Your task to perform on an android device: toggle javascript in the chrome app Image 0: 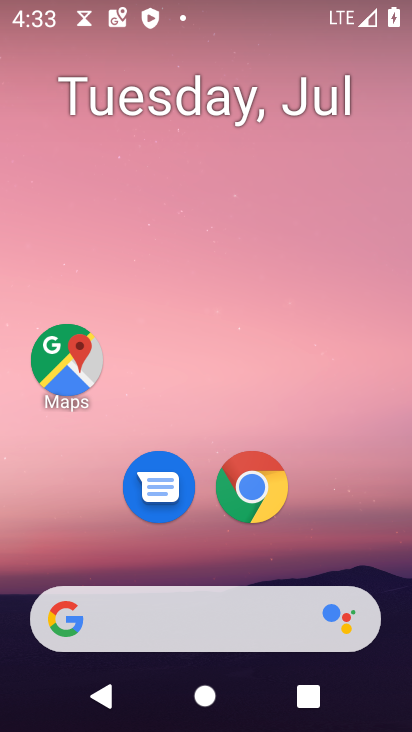
Step 0: click (245, 498)
Your task to perform on an android device: toggle javascript in the chrome app Image 1: 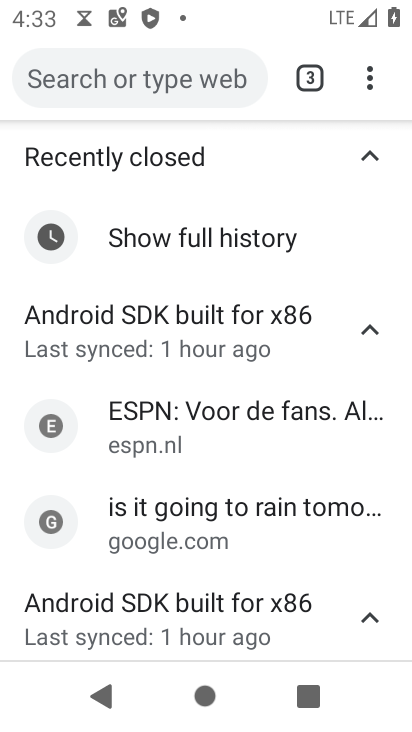
Step 1: drag from (365, 73) to (127, 543)
Your task to perform on an android device: toggle javascript in the chrome app Image 2: 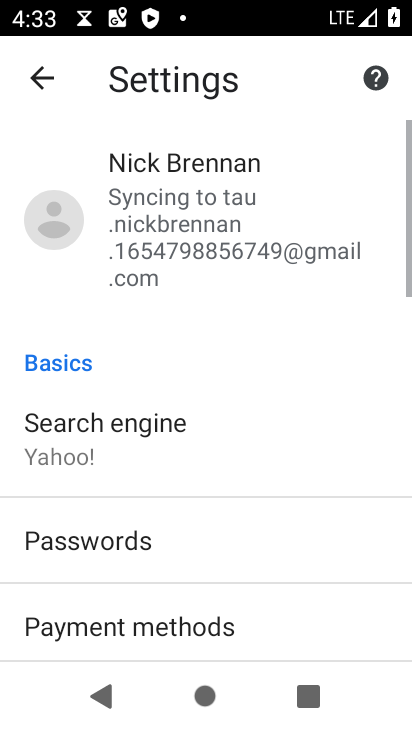
Step 2: drag from (190, 604) to (232, 79)
Your task to perform on an android device: toggle javascript in the chrome app Image 3: 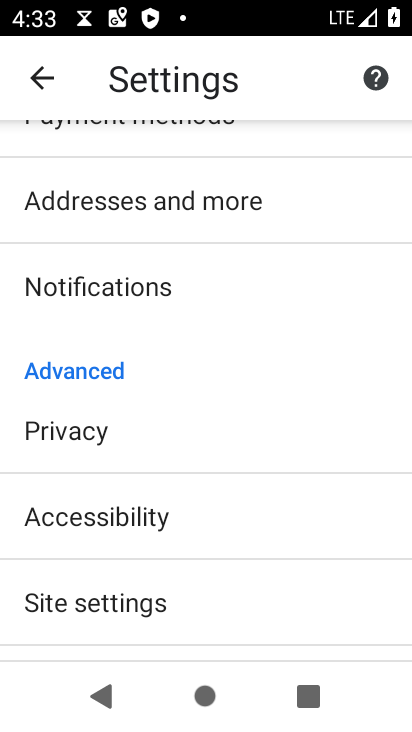
Step 3: click (120, 613)
Your task to perform on an android device: toggle javascript in the chrome app Image 4: 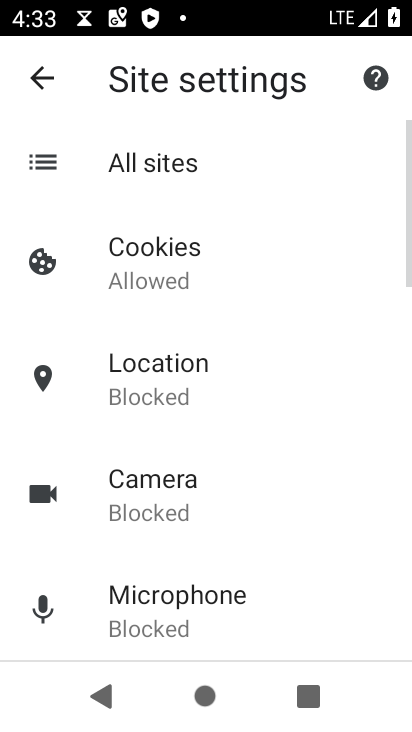
Step 4: drag from (157, 599) to (233, 45)
Your task to perform on an android device: toggle javascript in the chrome app Image 5: 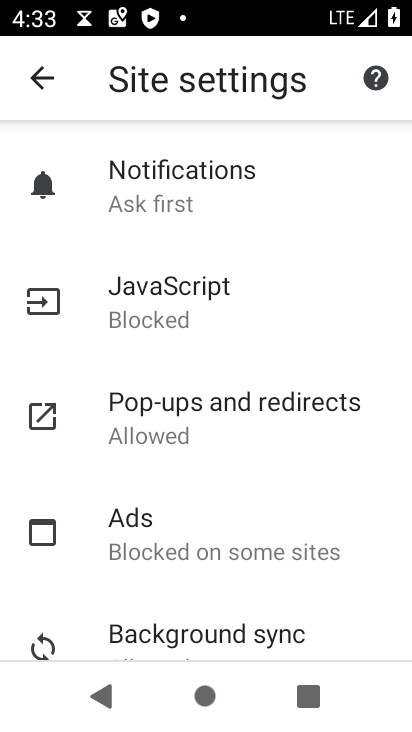
Step 5: click (138, 267)
Your task to perform on an android device: toggle javascript in the chrome app Image 6: 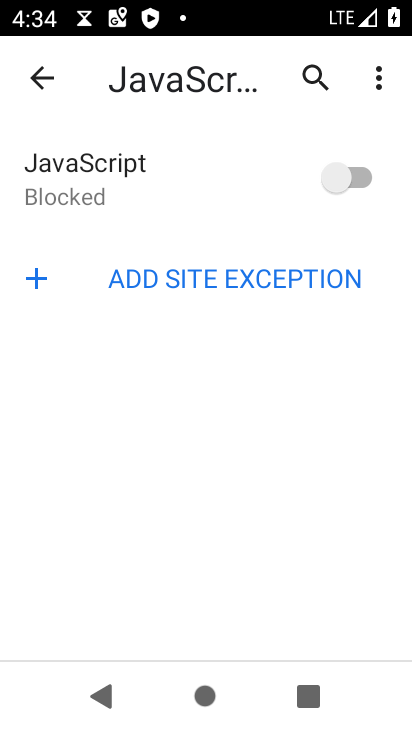
Step 6: task complete